Your task to perform on an android device: turn off data saver in the chrome app Image 0: 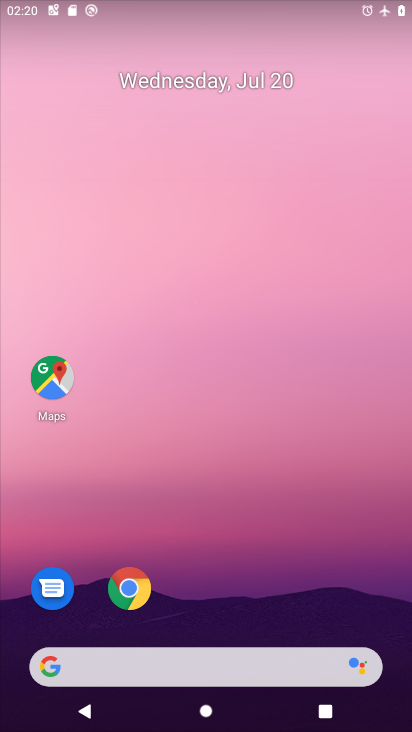
Step 0: drag from (138, 657) to (204, 177)
Your task to perform on an android device: turn off data saver in the chrome app Image 1: 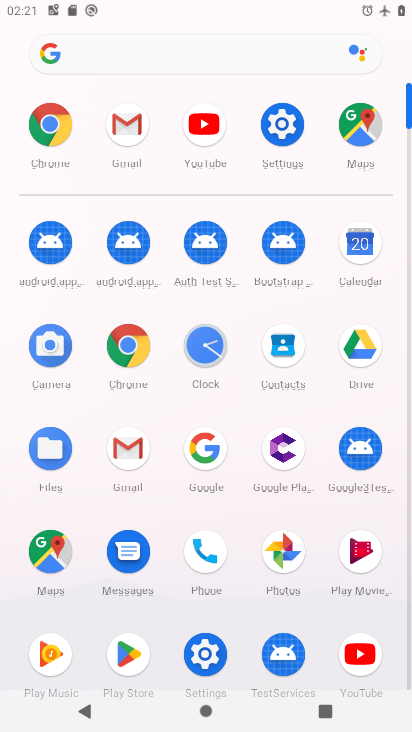
Step 1: click (40, 122)
Your task to perform on an android device: turn off data saver in the chrome app Image 2: 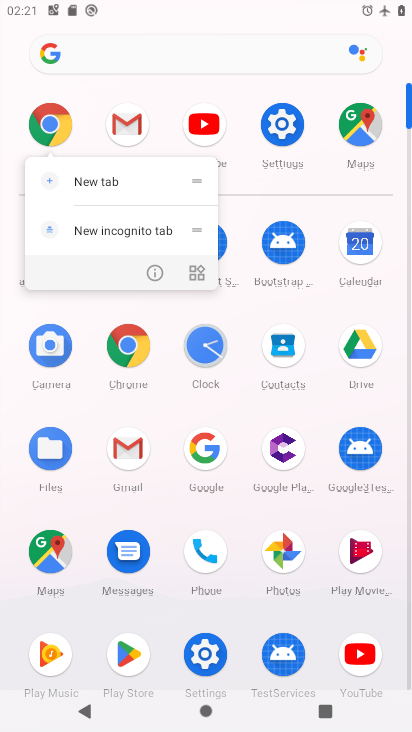
Step 2: click (63, 122)
Your task to perform on an android device: turn off data saver in the chrome app Image 3: 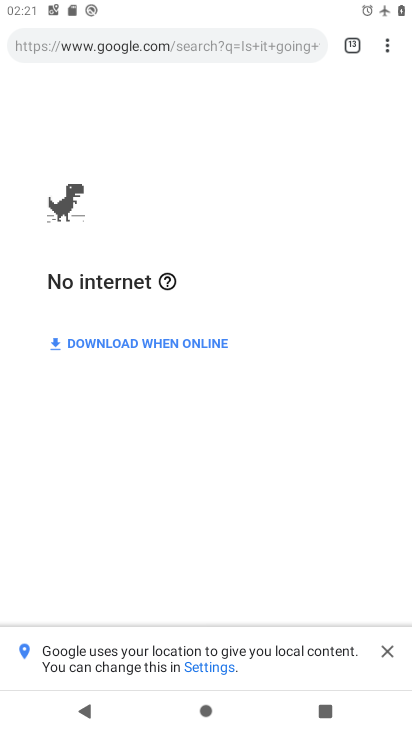
Step 3: click (394, 40)
Your task to perform on an android device: turn off data saver in the chrome app Image 4: 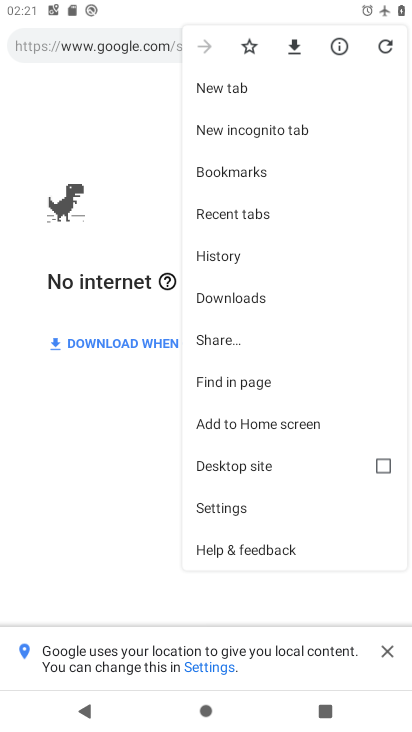
Step 4: click (254, 505)
Your task to perform on an android device: turn off data saver in the chrome app Image 5: 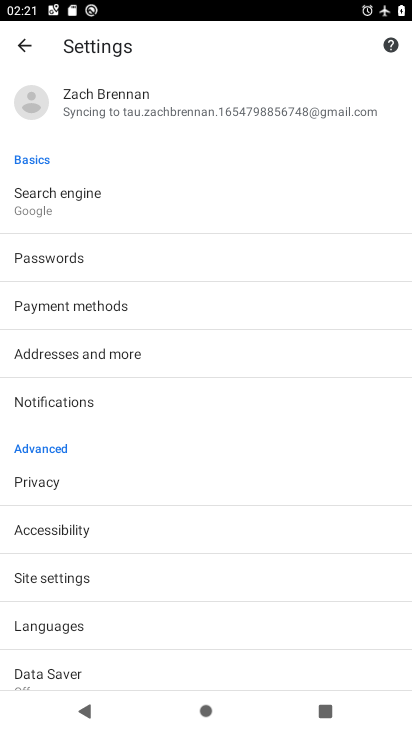
Step 5: click (108, 665)
Your task to perform on an android device: turn off data saver in the chrome app Image 6: 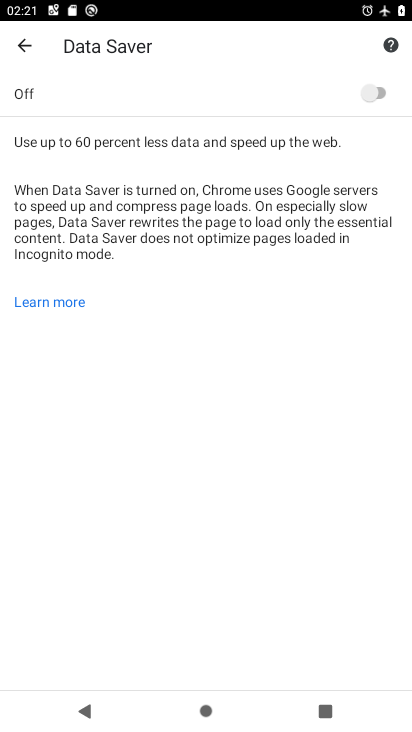
Step 6: task complete